Your task to perform on an android device: move an email to a new category in the gmail app Image 0: 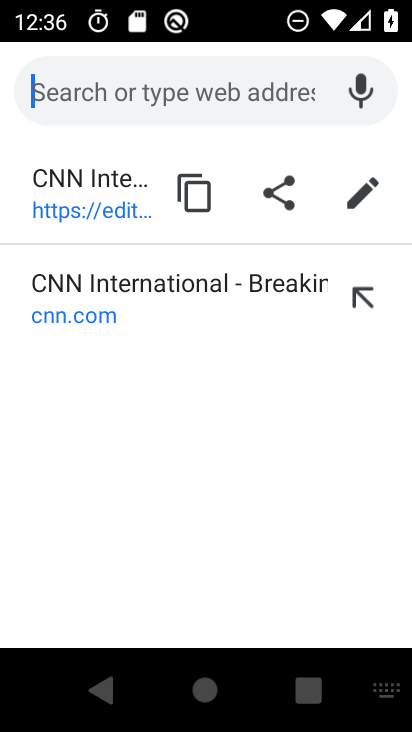
Step 0: press back button
Your task to perform on an android device: move an email to a new category in the gmail app Image 1: 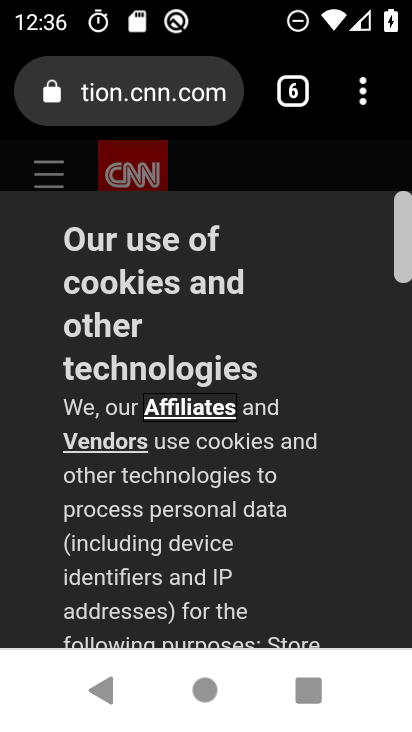
Step 1: press home button
Your task to perform on an android device: move an email to a new category in the gmail app Image 2: 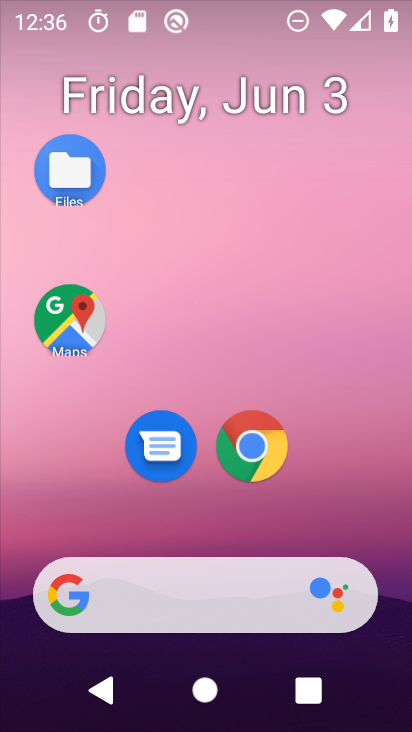
Step 2: drag from (278, 679) to (137, 64)
Your task to perform on an android device: move an email to a new category in the gmail app Image 3: 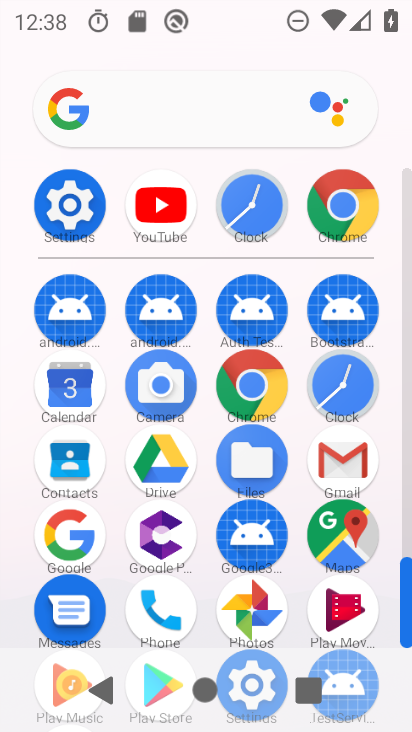
Step 3: click (333, 455)
Your task to perform on an android device: move an email to a new category in the gmail app Image 4: 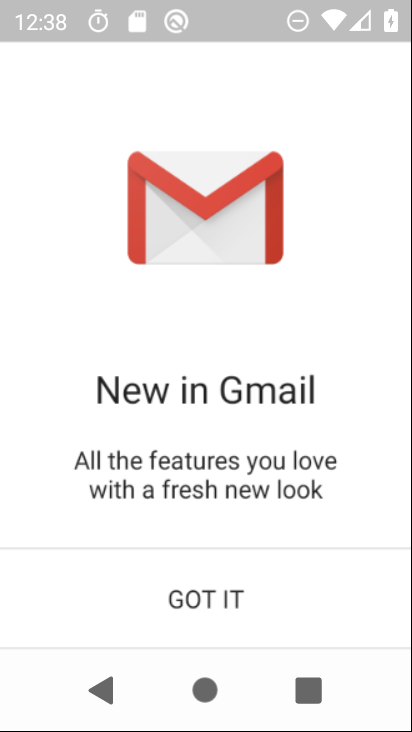
Step 4: click (332, 445)
Your task to perform on an android device: move an email to a new category in the gmail app Image 5: 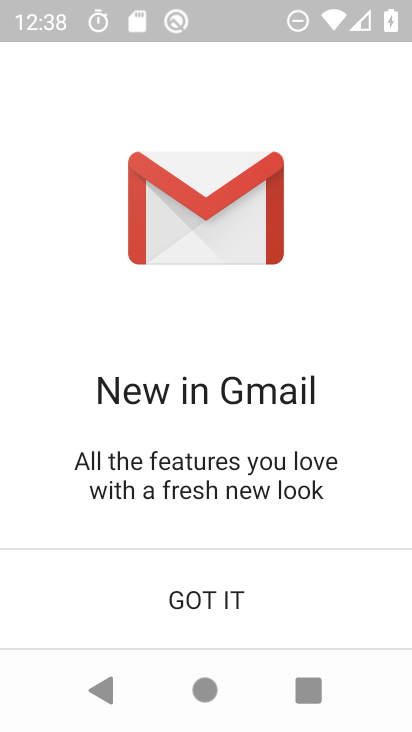
Step 5: click (339, 420)
Your task to perform on an android device: move an email to a new category in the gmail app Image 6: 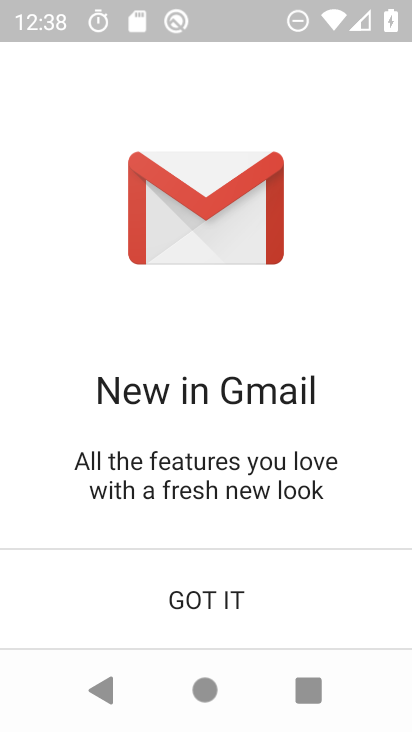
Step 6: click (196, 572)
Your task to perform on an android device: move an email to a new category in the gmail app Image 7: 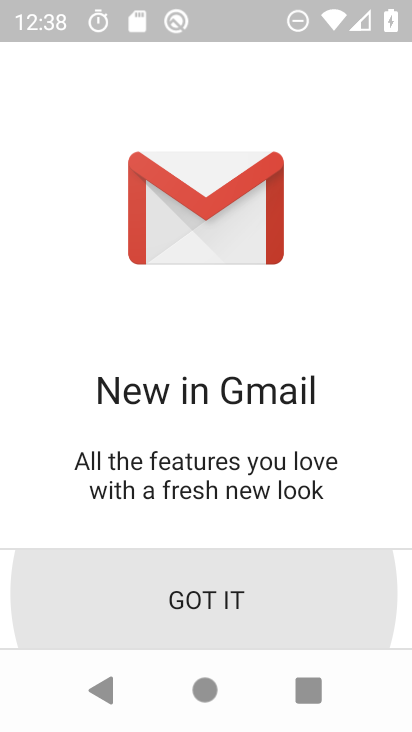
Step 7: click (199, 584)
Your task to perform on an android device: move an email to a new category in the gmail app Image 8: 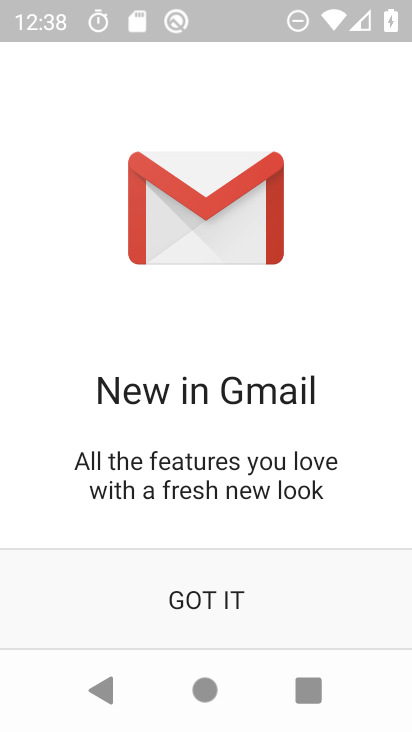
Step 8: click (200, 584)
Your task to perform on an android device: move an email to a new category in the gmail app Image 9: 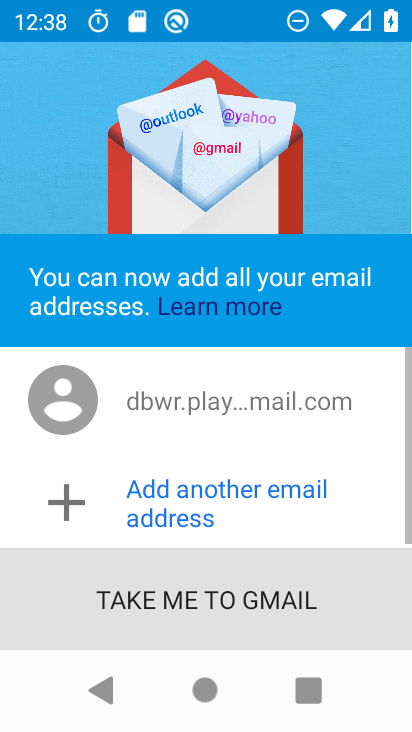
Step 9: click (205, 591)
Your task to perform on an android device: move an email to a new category in the gmail app Image 10: 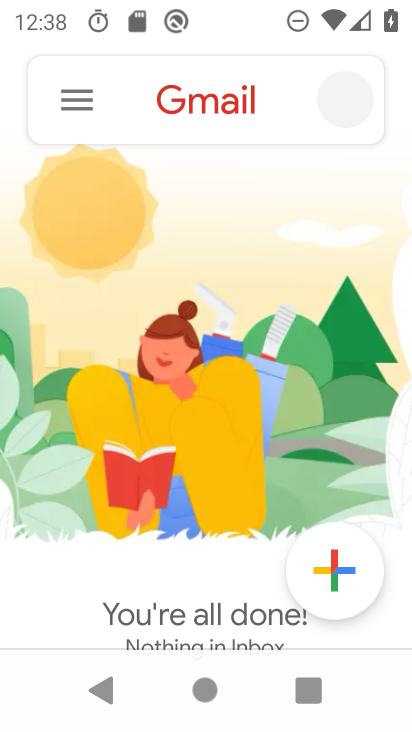
Step 10: click (211, 609)
Your task to perform on an android device: move an email to a new category in the gmail app Image 11: 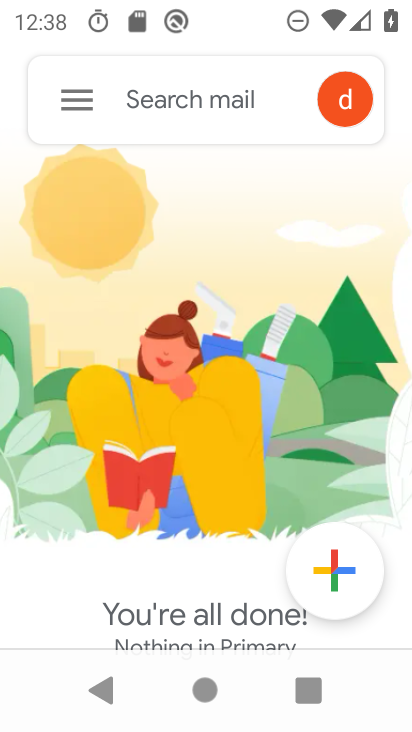
Step 11: click (74, 94)
Your task to perform on an android device: move an email to a new category in the gmail app Image 12: 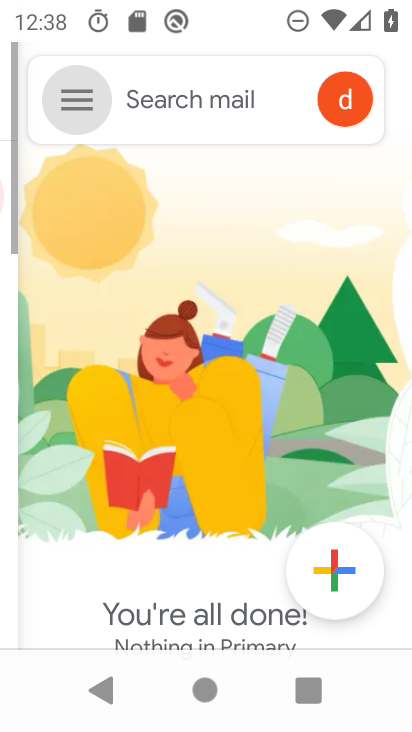
Step 12: click (74, 94)
Your task to perform on an android device: move an email to a new category in the gmail app Image 13: 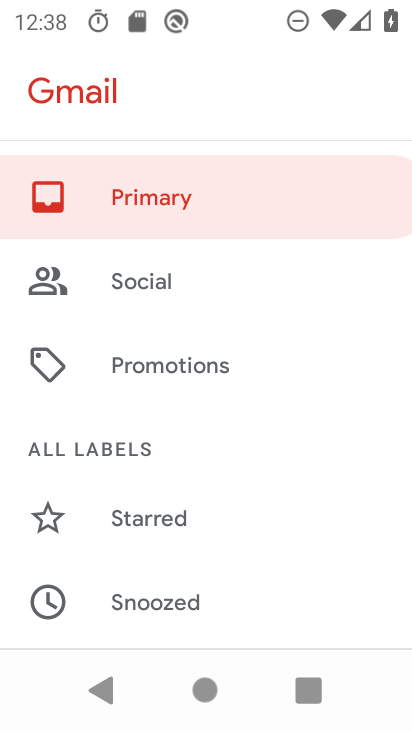
Step 13: drag from (74, 94) to (94, 356)
Your task to perform on an android device: move an email to a new category in the gmail app Image 14: 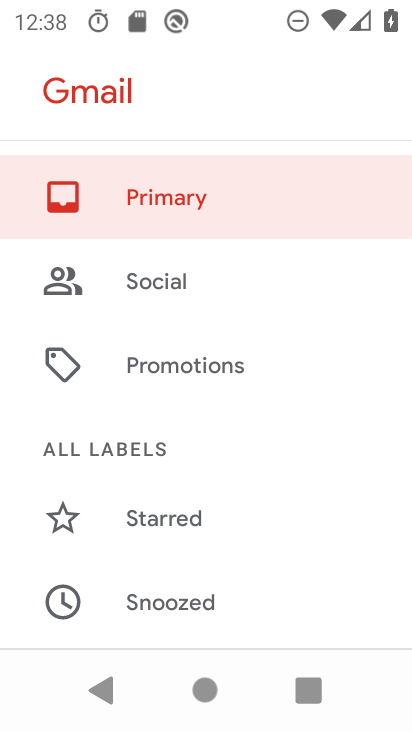
Step 14: drag from (194, 237) to (172, 282)
Your task to perform on an android device: move an email to a new category in the gmail app Image 15: 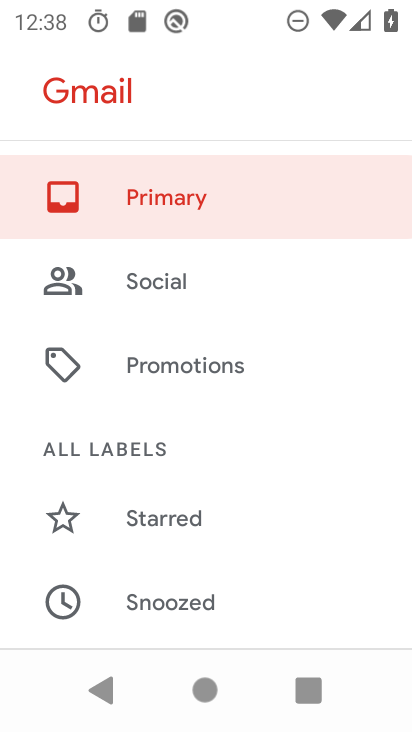
Step 15: drag from (187, 531) to (222, 214)
Your task to perform on an android device: move an email to a new category in the gmail app Image 16: 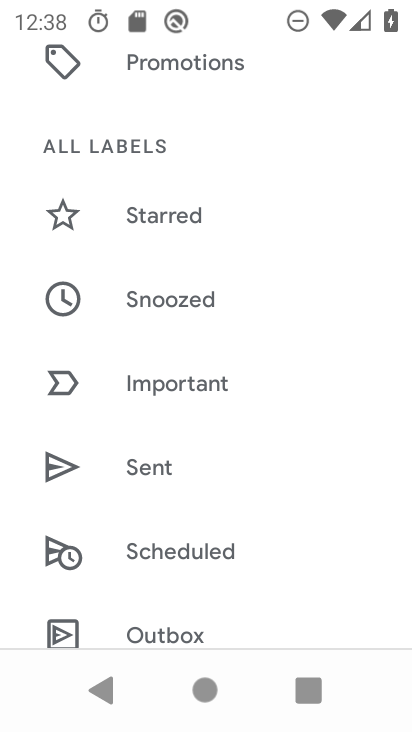
Step 16: drag from (202, 528) to (164, 236)
Your task to perform on an android device: move an email to a new category in the gmail app Image 17: 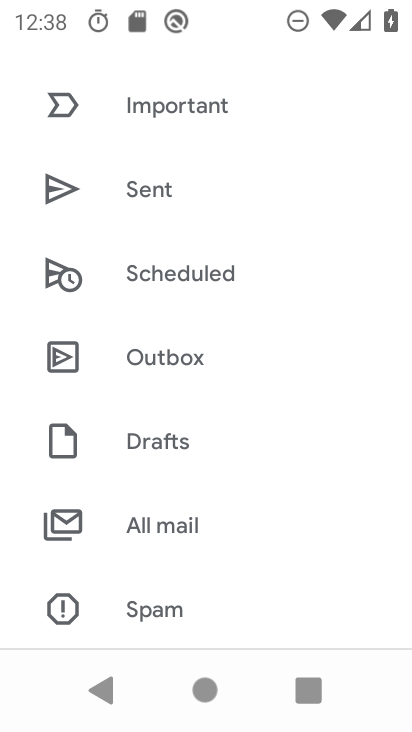
Step 17: click (137, 522)
Your task to perform on an android device: move an email to a new category in the gmail app Image 18: 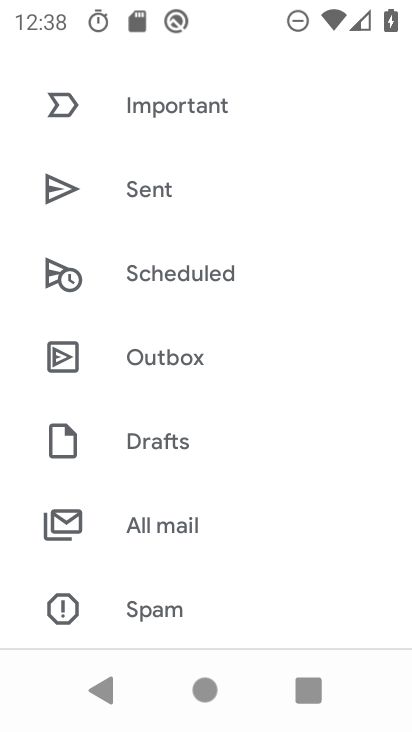
Step 18: click (145, 528)
Your task to perform on an android device: move an email to a new category in the gmail app Image 19: 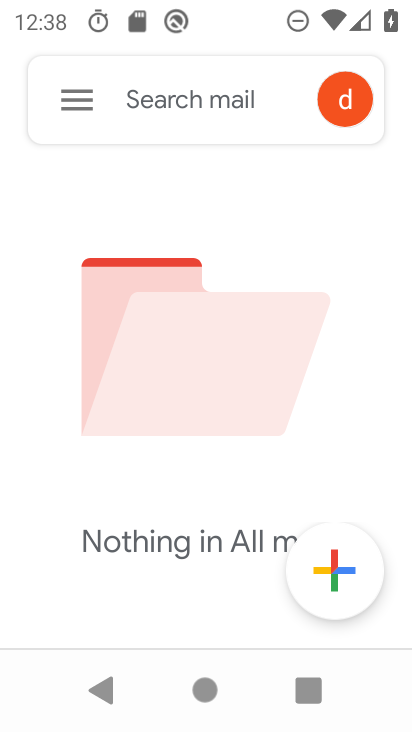
Step 19: task complete